Your task to perform on an android device: make emails show in primary in the gmail app Image 0: 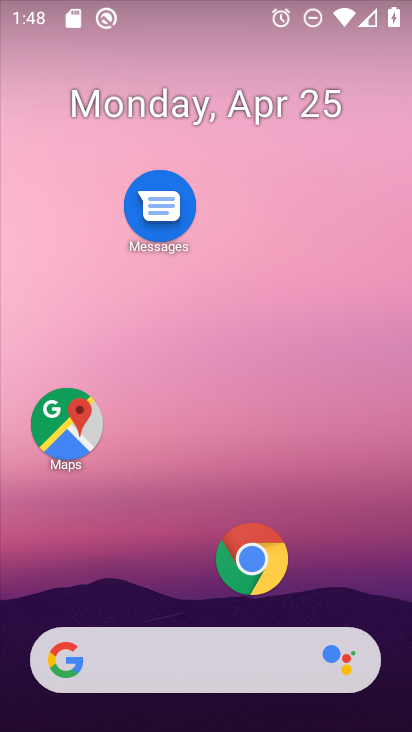
Step 0: drag from (181, 591) to (245, 58)
Your task to perform on an android device: make emails show in primary in the gmail app Image 1: 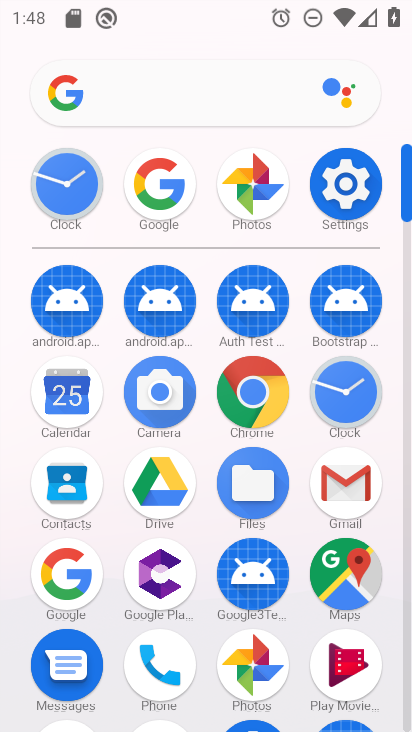
Step 1: click (347, 482)
Your task to perform on an android device: make emails show in primary in the gmail app Image 2: 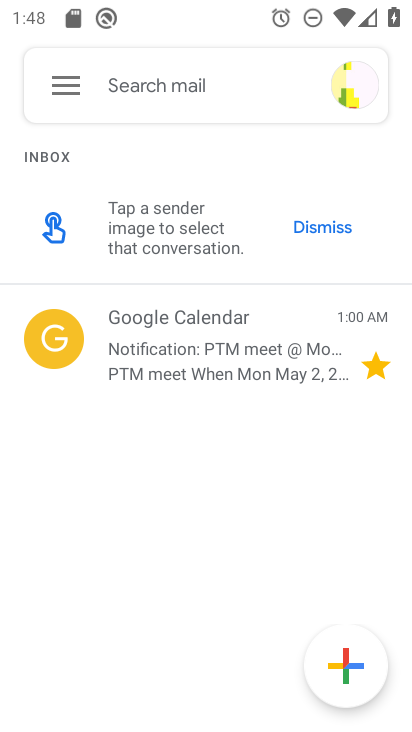
Step 2: click (74, 90)
Your task to perform on an android device: make emails show in primary in the gmail app Image 3: 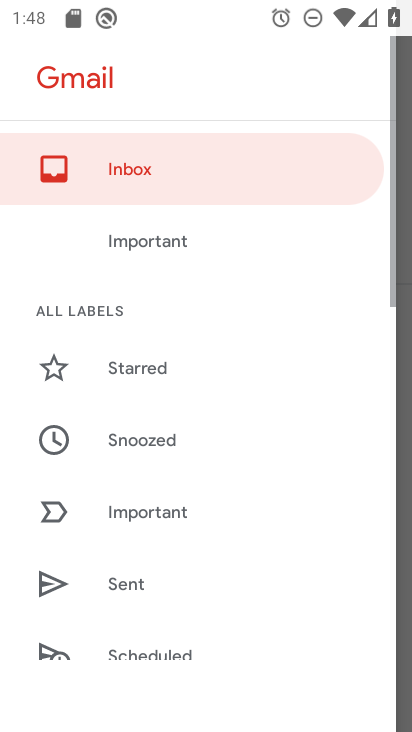
Step 3: drag from (231, 595) to (285, 93)
Your task to perform on an android device: make emails show in primary in the gmail app Image 4: 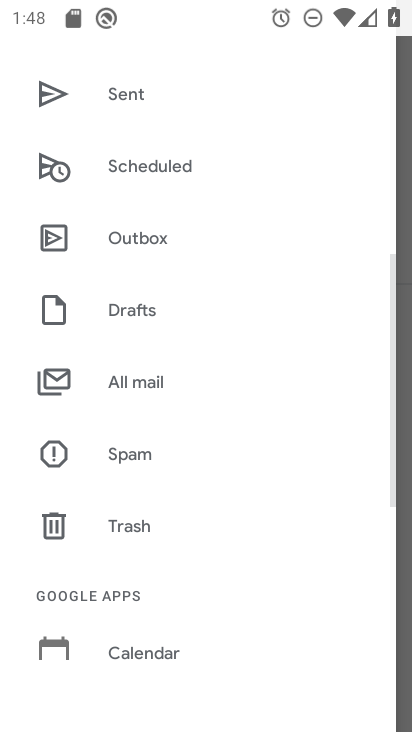
Step 4: drag from (217, 574) to (245, 190)
Your task to perform on an android device: make emails show in primary in the gmail app Image 5: 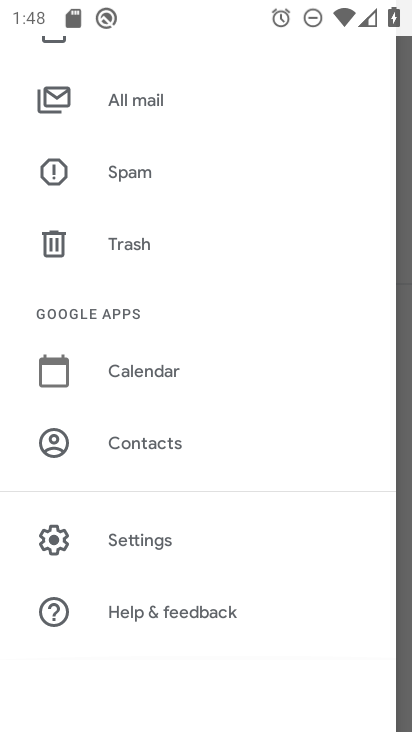
Step 5: click (150, 535)
Your task to perform on an android device: make emails show in primary in the gmail app Image 6: 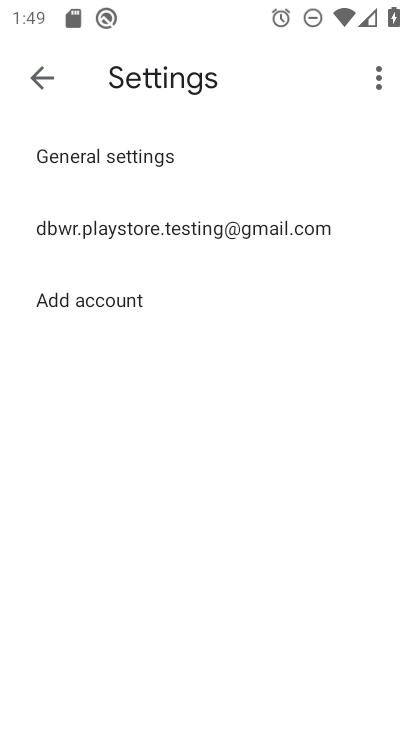
Step 6: click (183, 222)
Your task to perform on an android device: make emails show in primary in the gmail app Image 7: 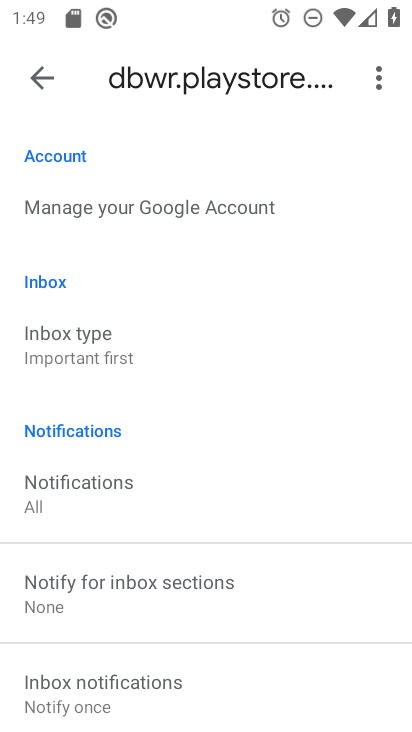
Step 7: drag from (226, 479) to (240, 181)
Your task to perform on an android device: make emails show in primary in the gmail app Image 8: 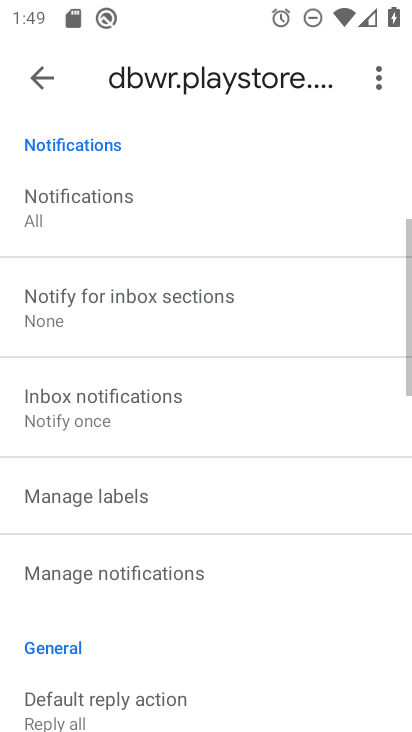
Step 8: drag from (266, 663) to (230, 47)
Your task to perform on an android device: make emails show in primary in the gmail app Image 9: 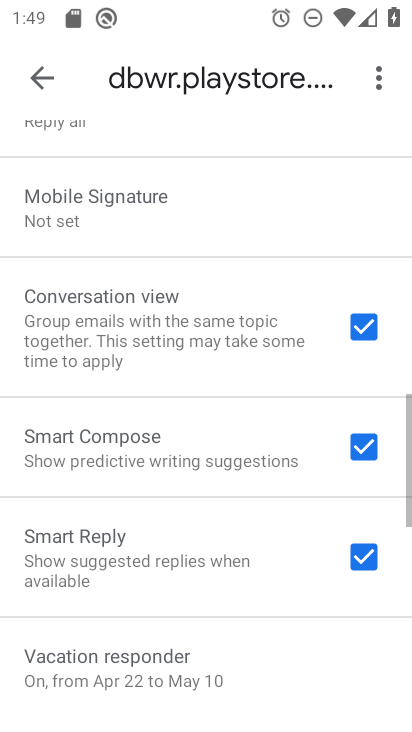
Step 9: drag from (204, 654) to (220, 230)
Your task to perform on an android device: make emails show in primary in the gmail app Image 10: 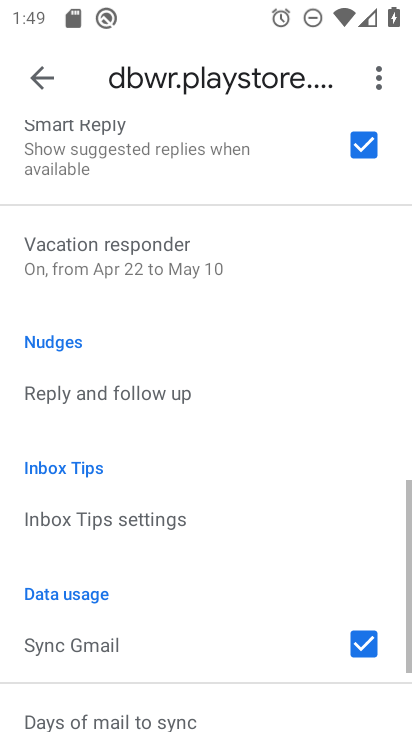
Step 10: drag from (221, 666) to (222, 234)
Your task to perform on an android device: make emails show in primary in the gmail app Image 11: 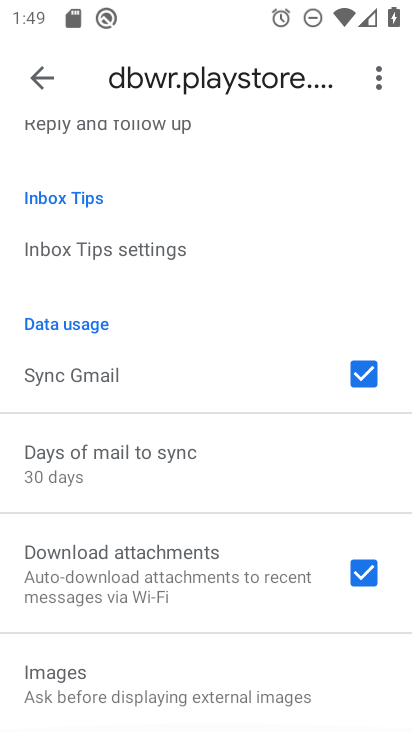
Step 11: drag from (199, 656) to (273, 174)
Your task to perform on an android device: make emails show in primary in the gmail app Image 12: 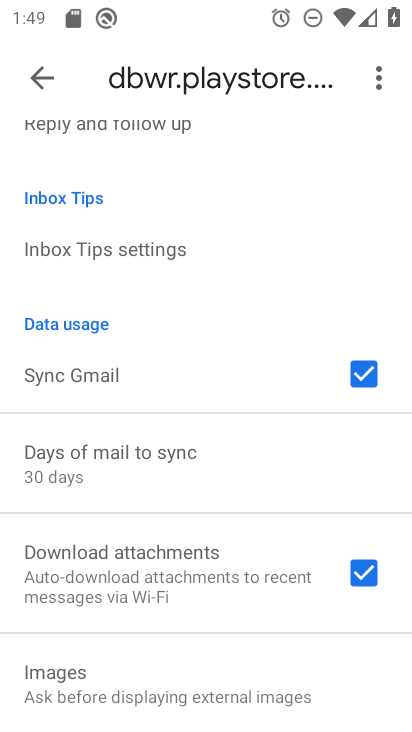
Step 12: drag from (245, 273) to (252, 730)
Your task to perform on an android device: make emails show in primary in the gmail app Image 13: 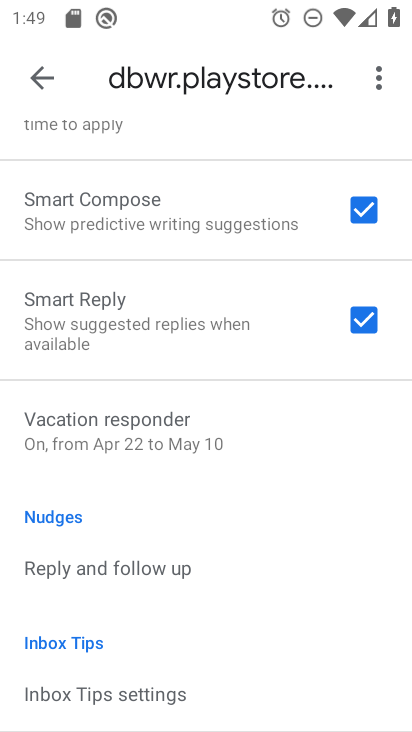
Step 13: drag from (133, 198) to (199, 572)
Your task to perform on an android device: make emails show in primary in the gmail app Image 14: 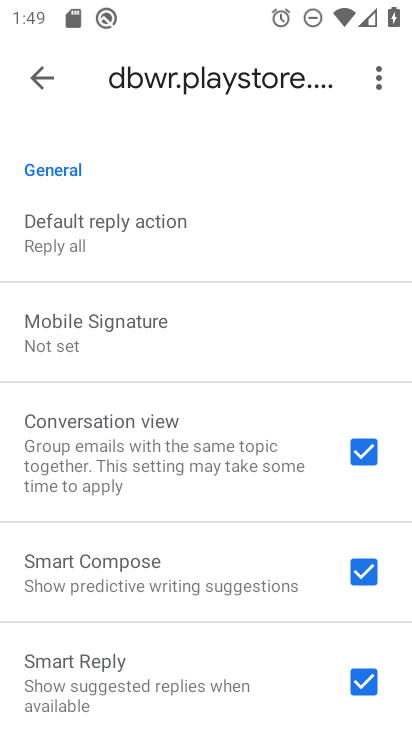
Step 14: drag from (140, 378) to (181, 632)
Your task to perform on an android device: make emails show in primary in the gmail app Image 15: 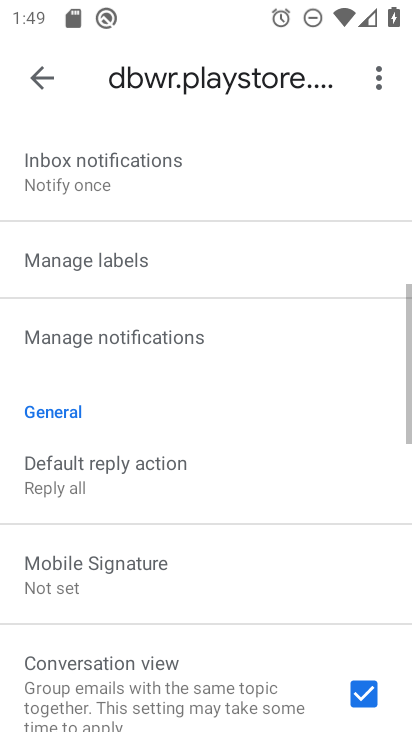
Step 15: drag from (128, 180) to (210, 522)
Your task to perform on an android device: make emails show in primary in the gmail app Image 16: 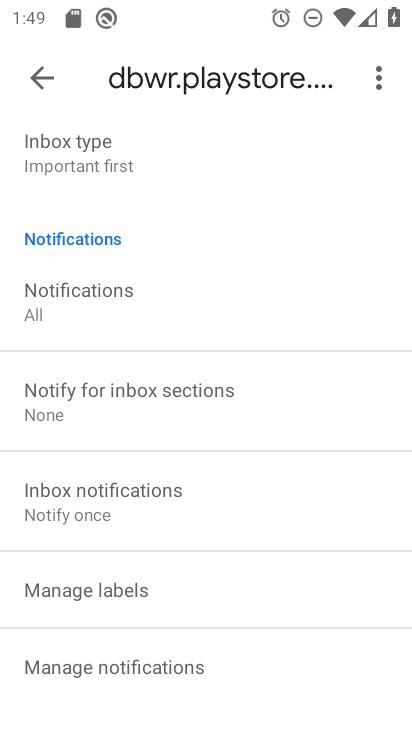
Step 16: drag from (124, 226) to (173, 509)
Your task to perform on an android device: make emails show in primary in the gmail app Image 17: 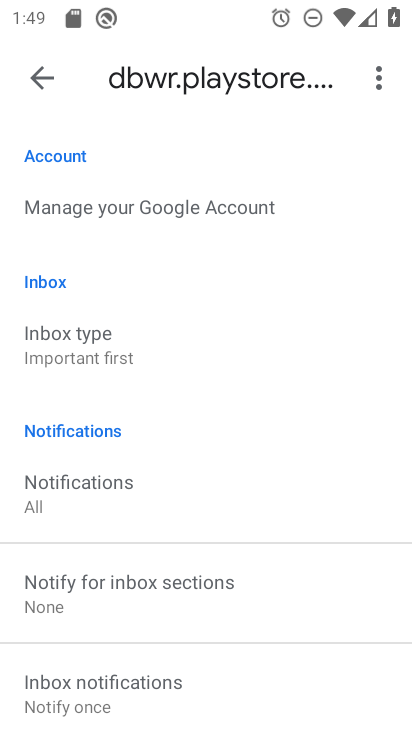
Step 17: click (75, 350)
Your task to perform on an android device: make emails show in primary in the gmail app Image 18: 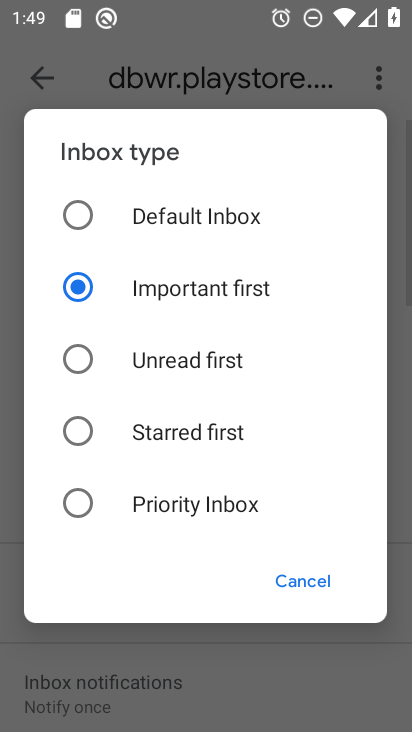
Step 18: click (82, 212)
Your task to perform on an android device: make emails show in primary in the gmail app Image 19: 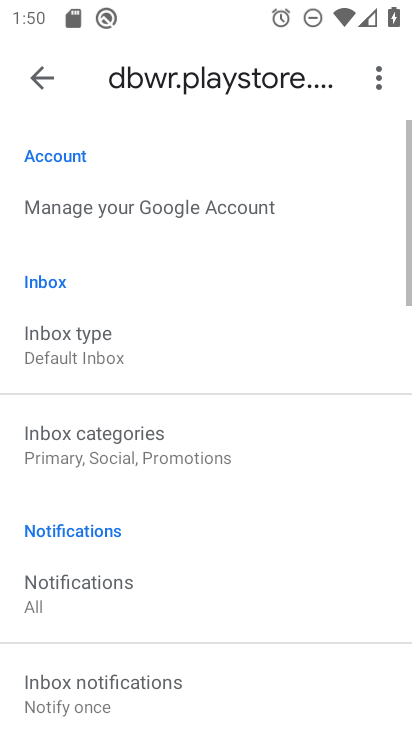
Step 19: click (108, 448)
Your task to perform on an android device: make emails show in primary in the gmail app Image 20: 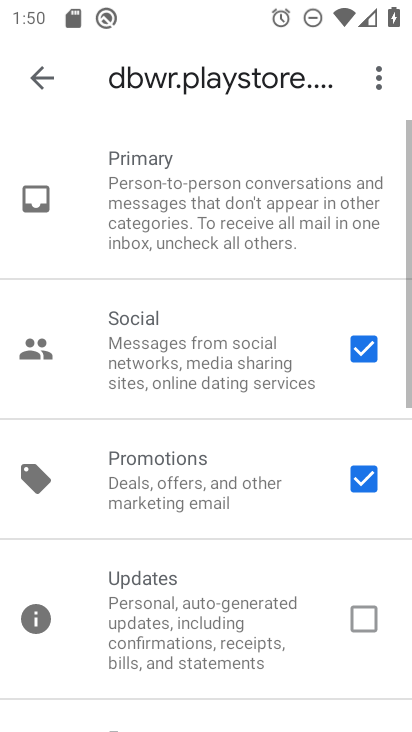
Step 20: click (343, 345)
Your task to perform on an android device: make emails show in primary in the gmail app Image 21: 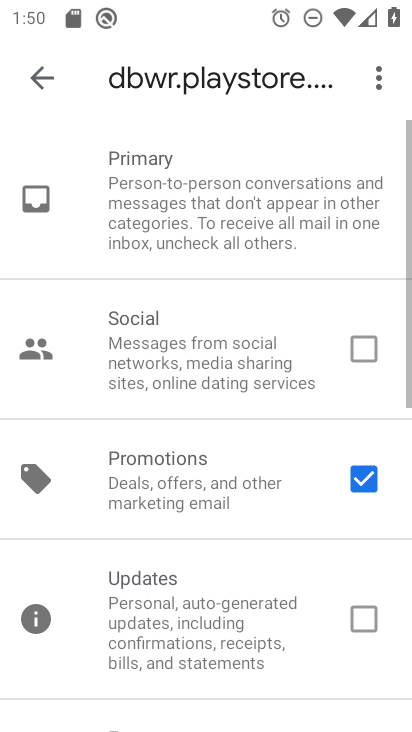
Step 21: click (362, 482)
Your task to perform on an android device: make emails show in primary in the gmail app Image 22: 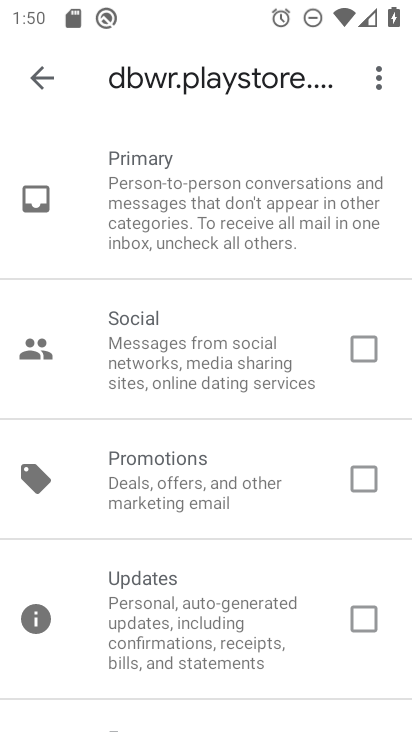
Step 22: task complete